Your task to perform on an android device: check google app version Image 0: 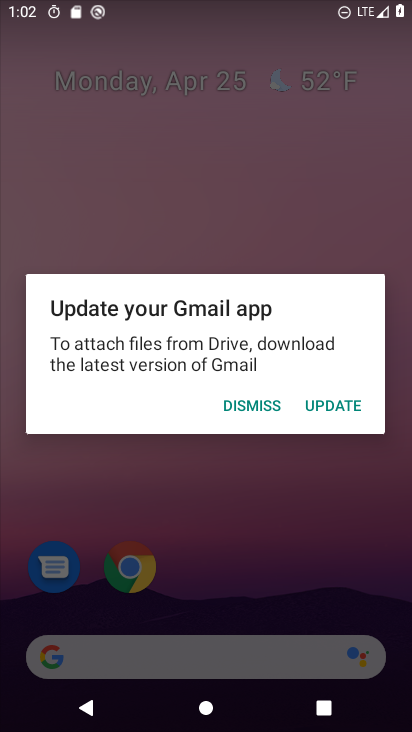
Step 0: press home button
Your task to perform on an android device: check google app version Image 1: 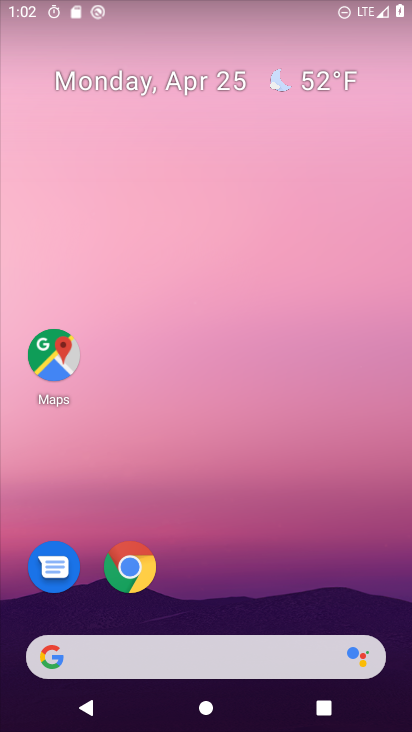
Step 1: drag from (299, 560) to (261, 25)
Your task to perform on an android device: check google app version Image 2: 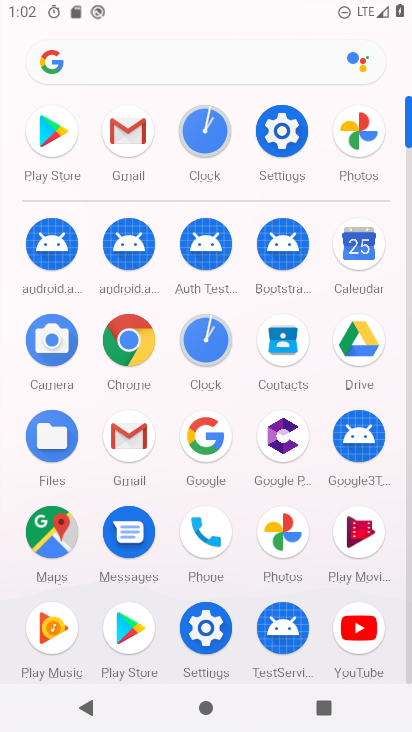
Step 2: click (207, 445)
Your task to perform on an android device: check google app version Image 3: 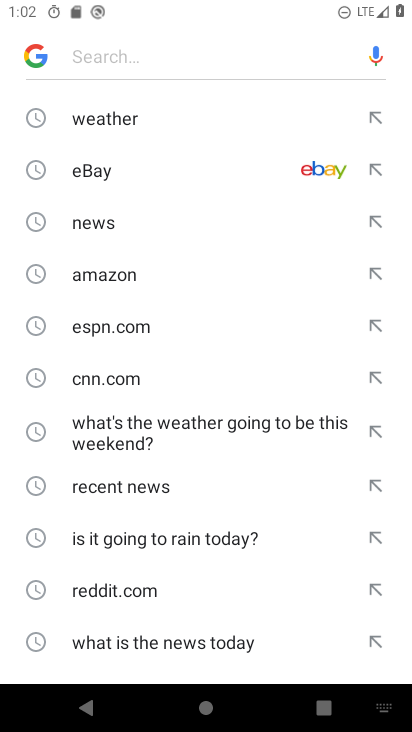
Step 3: click (34, 54)
Your task to perform on an android device: check google app version Image 4: 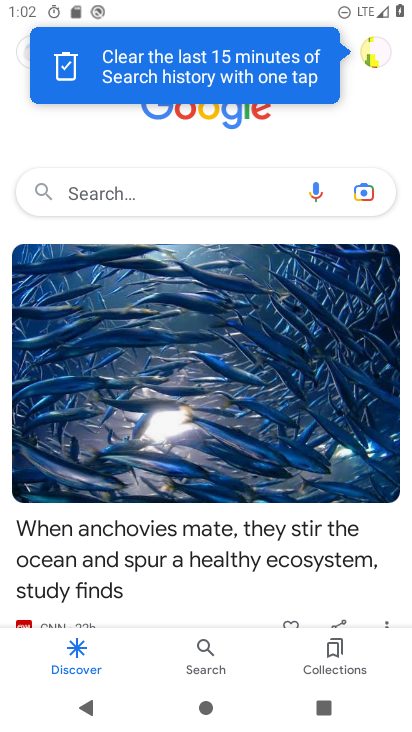
Step 4: click (376, 51)
Your task to perform on an android device: check google app version Image 5: 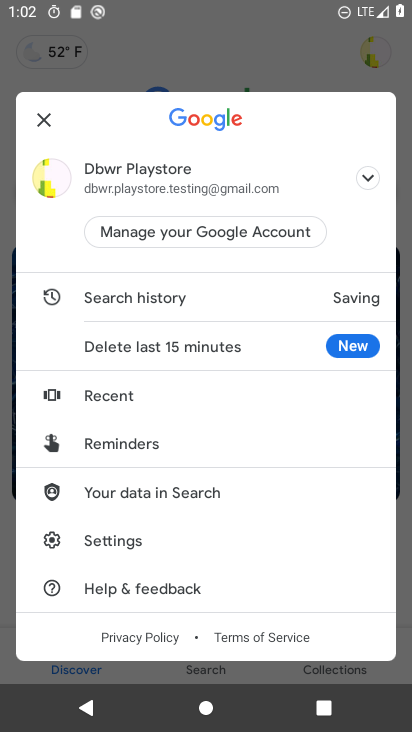
Step 5: click (132, 541)
Your task to perform on an android device: check google app version Image 6: 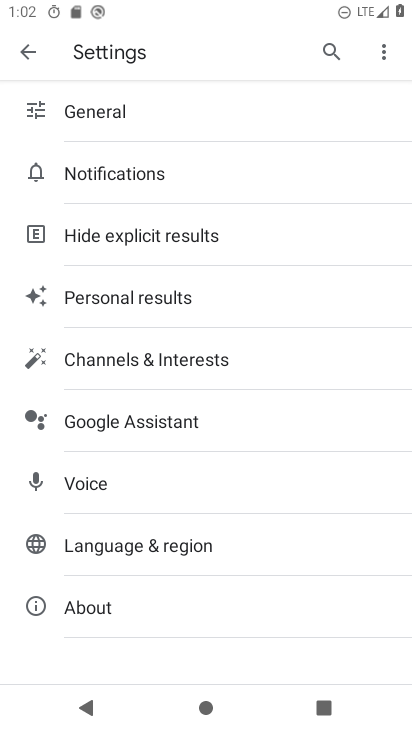
Step 6: click (117, 606)
Your task to perform on an android device: check google app version Image 7: 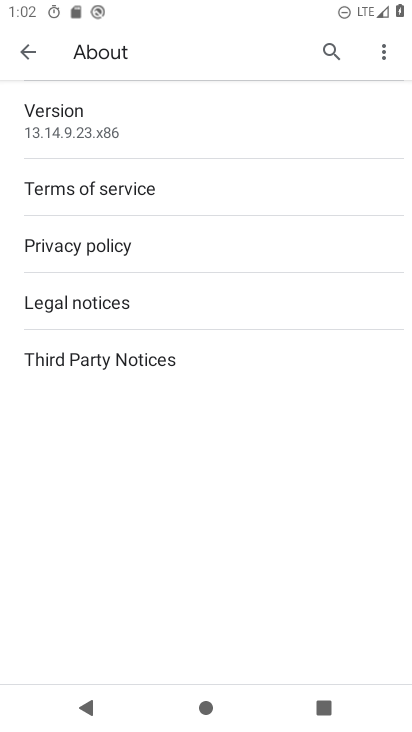
Step 7: task complete